Your task to perform on an android device: toggle airplane mode Image 0: 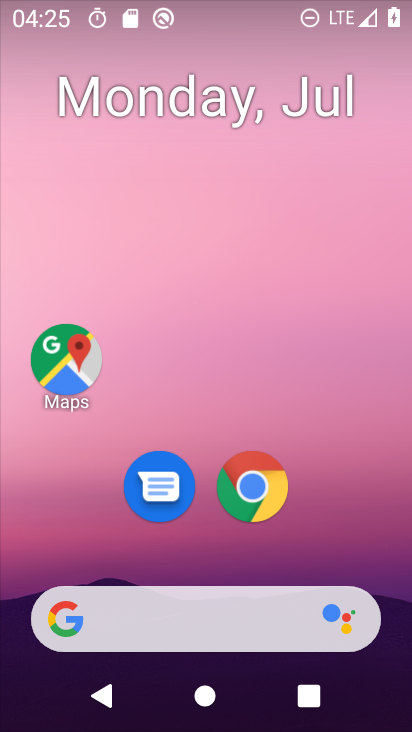
Step 0: drag from (246, 491) to (214, 578)
Your task to perform on an android device: toggle airplane mode Image 1: 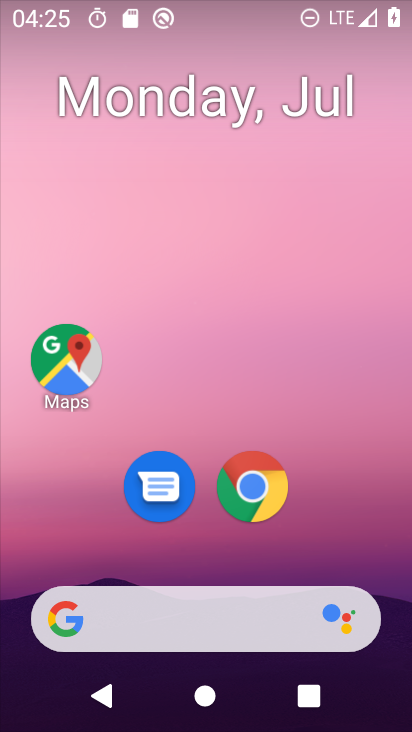
Step 1: drag from (341, 54) to (302, 432)
Your task to perform on an android device: toggle airplane mode Image 2: 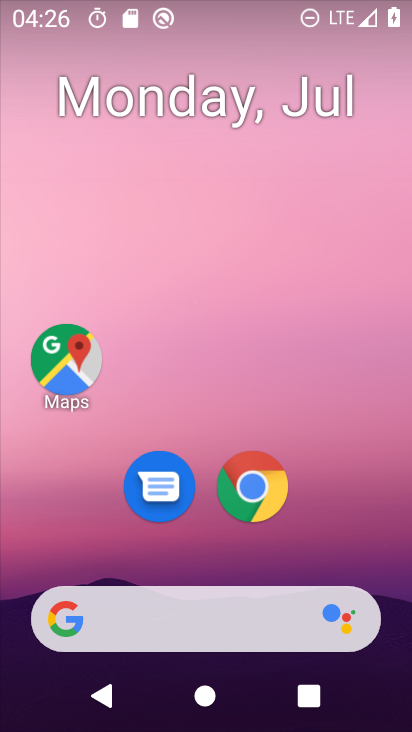
Step 2: drag from (374, 17) to (242, 558)
Your task to perform on an android device: toggle airplane mode Image 3: 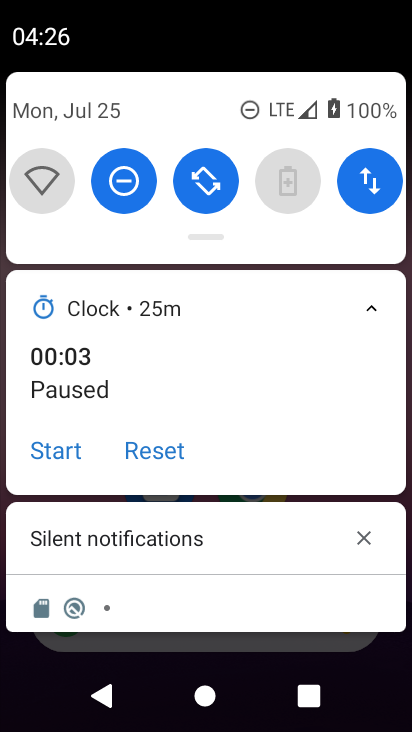
Step 3: drag from (201, 224) to (190, 710)
Your task to perform on an android device: toggle airplane mode Image 4: 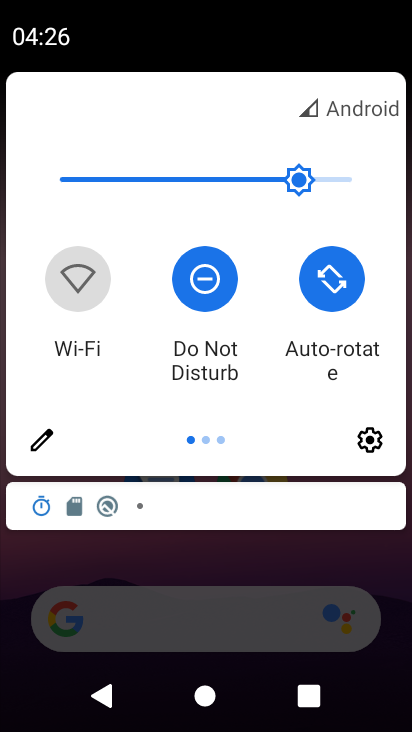
Step 4: drag from (365, 283) to (3, 301)
Your task to perform on an android device: toggle airplane mode Image 5: 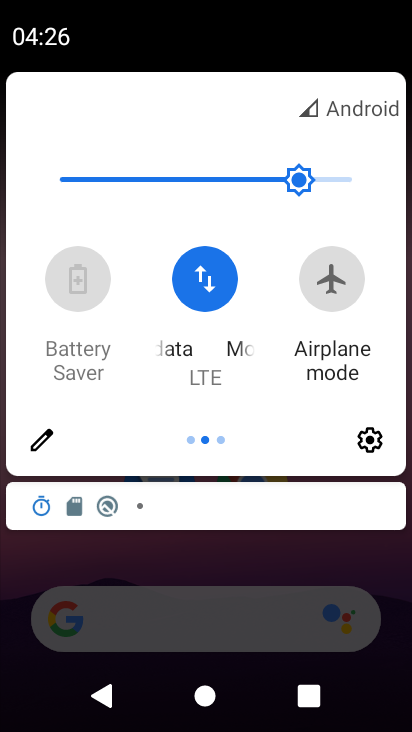
Step 5: click (333, 255)
Your task to perform on an android device: toggle airplane mode Image 6: 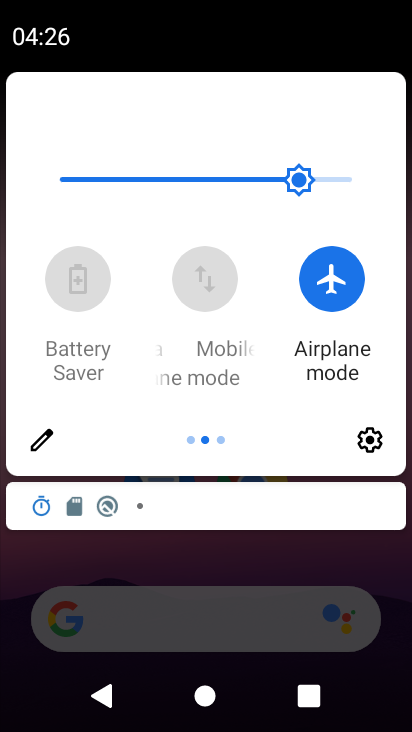
Step 6: task complete